Your task to perform on an android device: see tabs open on other devices in the chrome app Image 0: 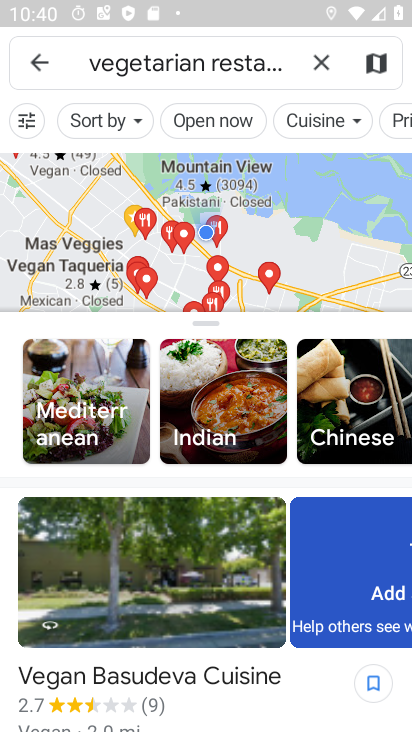
Step 0: press back button
Your task to perform on an android device: see tabs open on other devices in the chrome app Image 1: 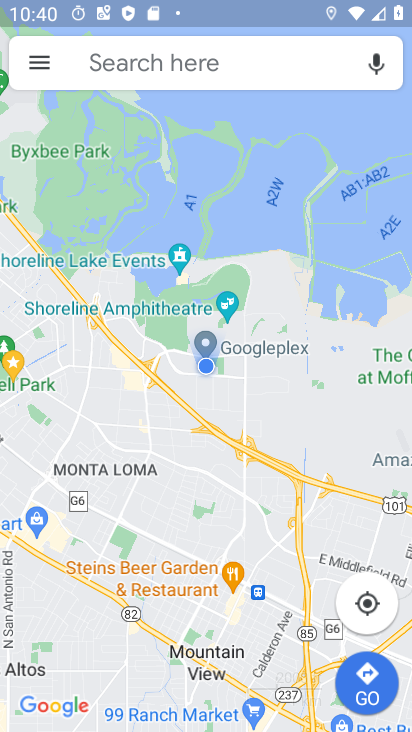
Step 1: press back button
Your task to perform on an android device: see tabs open on other devices in the chrome app Image 2: 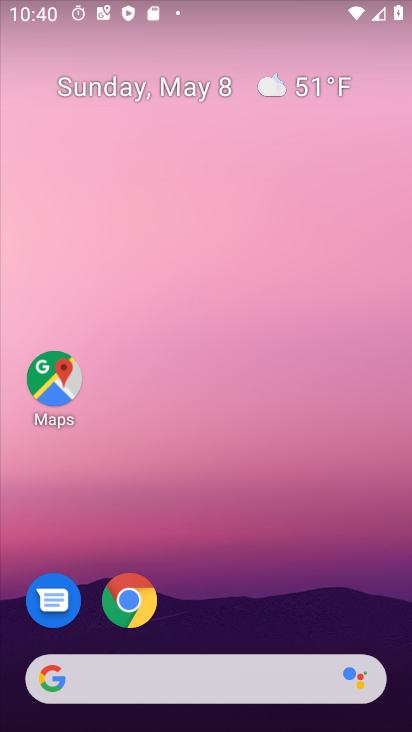
Step 2: press home button
Your task to perform on an android device: see tabs open on other devices in the chrome app Image 3: 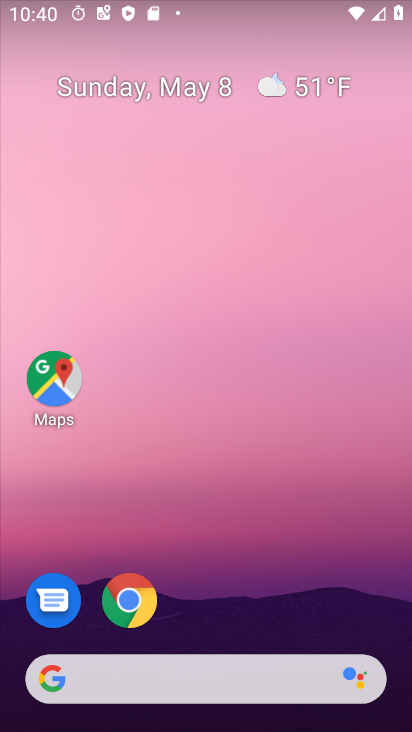
Step 3: drag from (210, 603) to (256, 2)
Your task to perform on an android device: see tabs open on other devices in the chrome app Image 4: 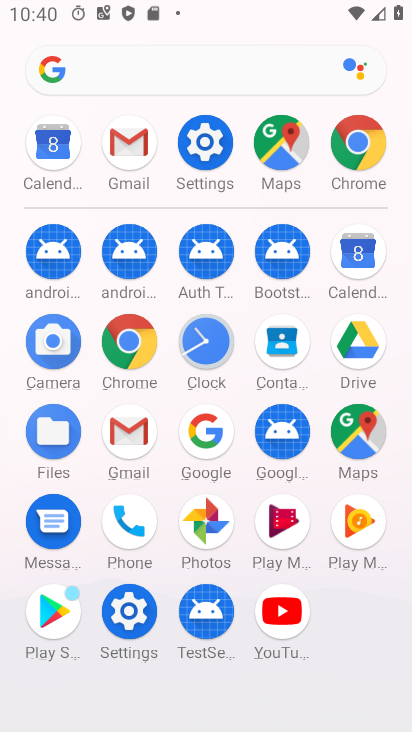
Step 4: click (123, 336)
Your task to perform on an android device: see tabs open on other devices in the chrome app Image 5: 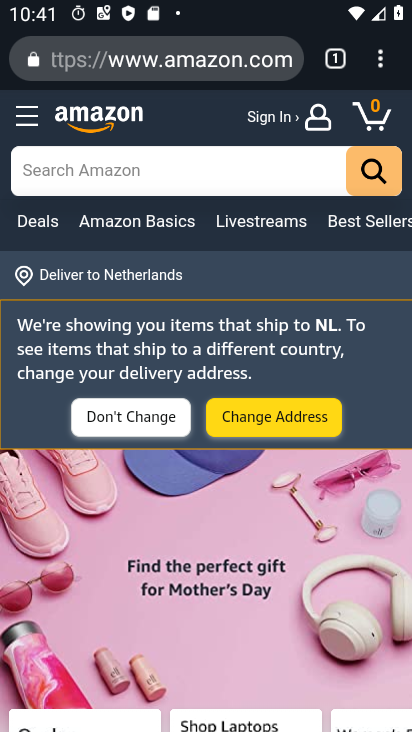
Step 5: task complete